Your task to perform on an android device: Search for the best rated headphones on Walmart Image 0: 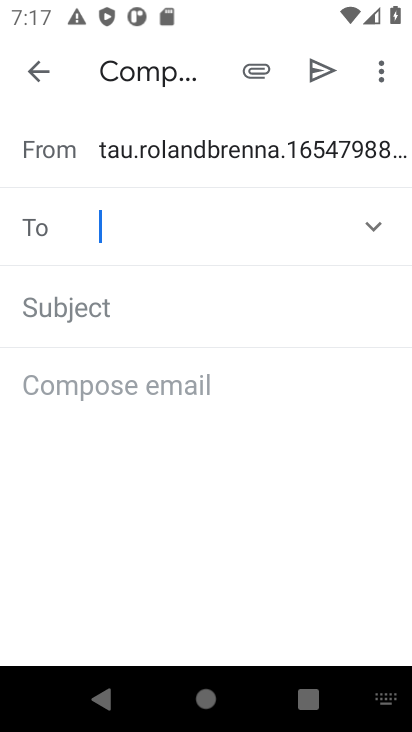
Step 0: press home button
Your task to perform on an android device: Search for the best rated headphones on Walmart Image 1: 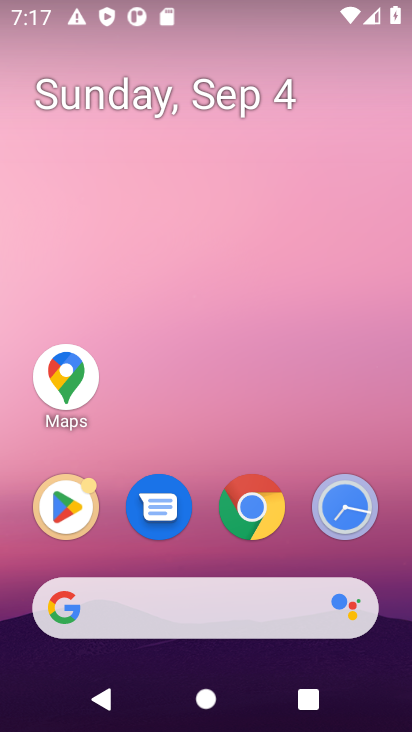
Step 1: click (259, 512)
Your task to perform on an android device: Search for the best rated headphones on Walmart Image 2: 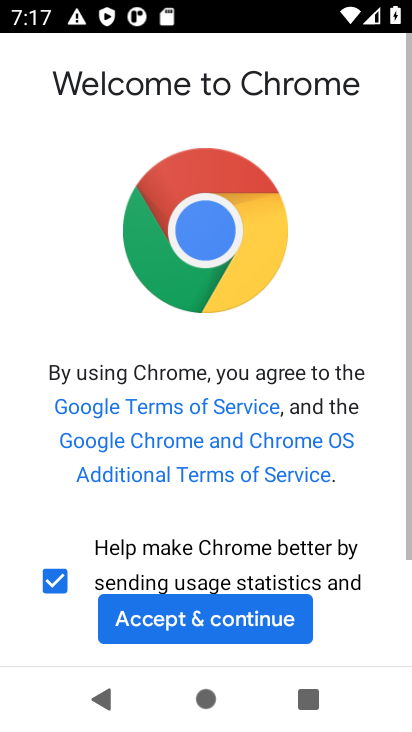
Step 2: click (199, 626)
Your task to perform on an android device: Search for the best rated headphones on Walmart Image 3: 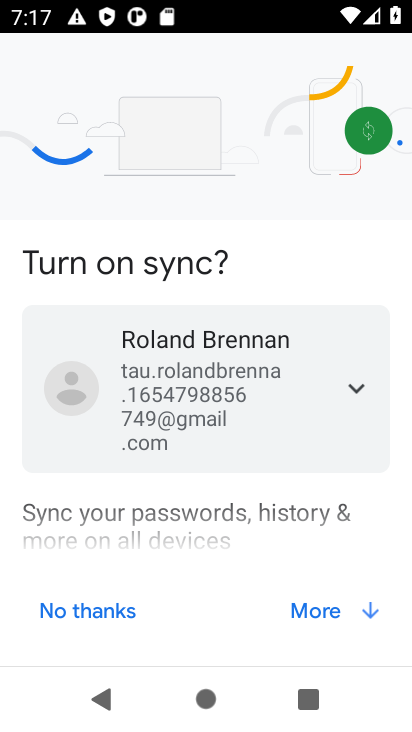
Step 3: click (343, 606)
Your task to perform on an android device: Search for the best rated headphones on Walmart Image 4: 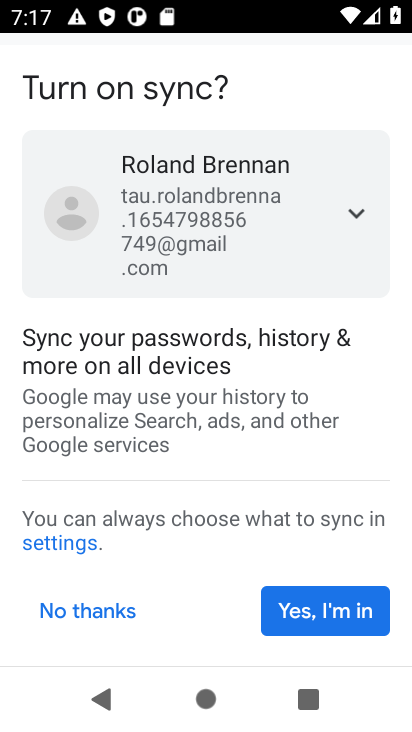
Step 4: click (343, 606)
Your task to perform on an android device: Search for the best rated headphones on Walmart Image 5: 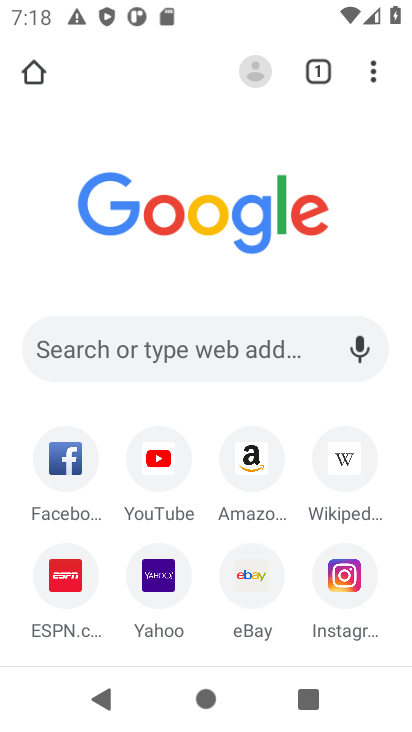
Step 5: click (224, 332)
Your task to perform on an android device: Search for the best rated headphones on Walmart Image 6: 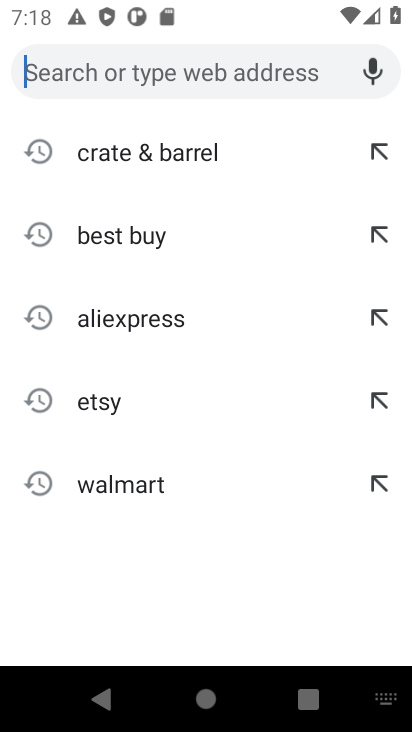
Step 6: type "walmart"
Your task to perform on an android device: Search for the best rated headphones on Walmart Image 7: 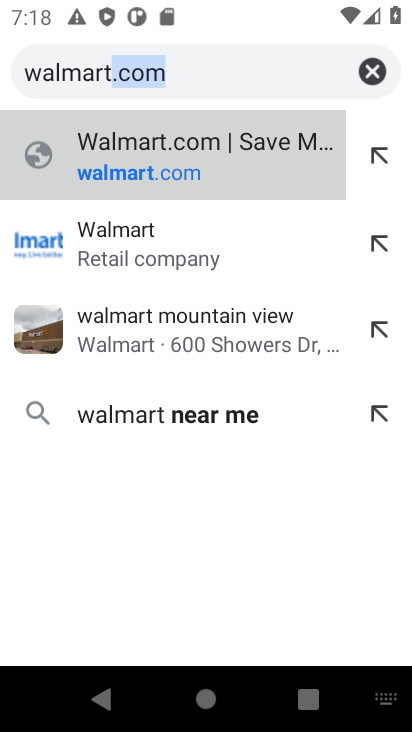
Step 7: click (200, 184)
Your task to perform on an android device: Search for the best rated headphones on Walmart Image 8: 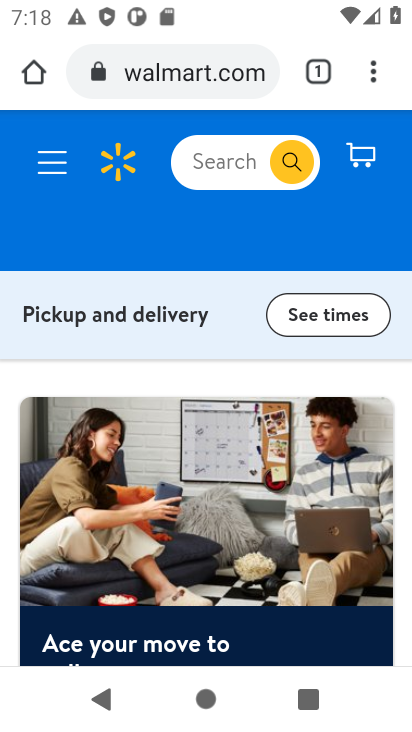
Step 8: click (231, 178)
Your task to perform on an android device: Search for the best rated headphones on Walmart Image 9: 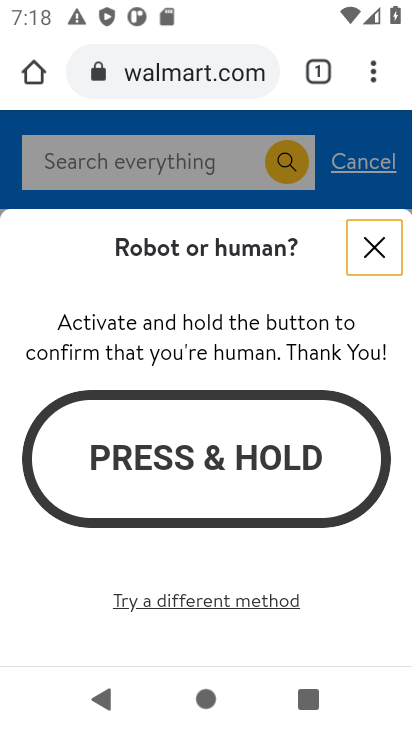
Step 9: click (275, 434)
Your task to perform on an android device: Search for the best rated headphones on Walmart Image 10: 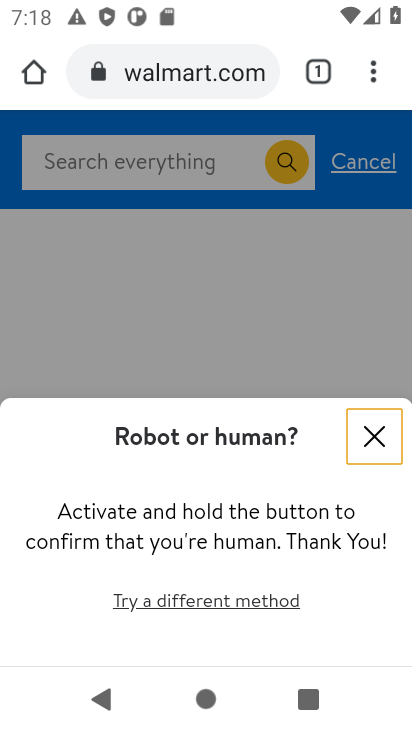
Step 10: click (367, 447)
Your task to perform on an android device: Search for the best rated headphones on Walmart Image 11: 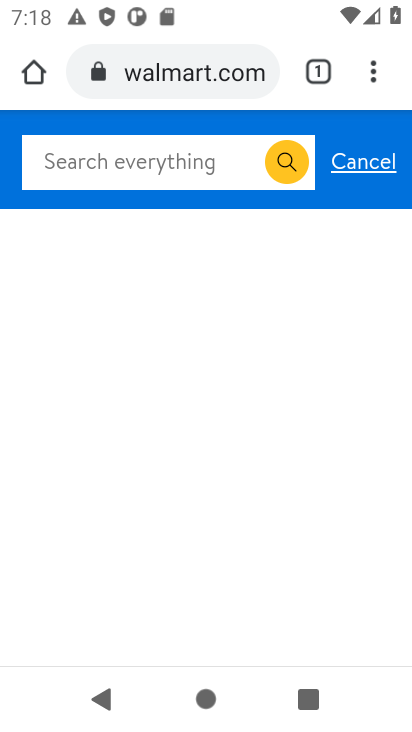
Step 11: click (147, 150)
Your task to perform on an android device: Search for the best rated headphones on Walmart Image 12: 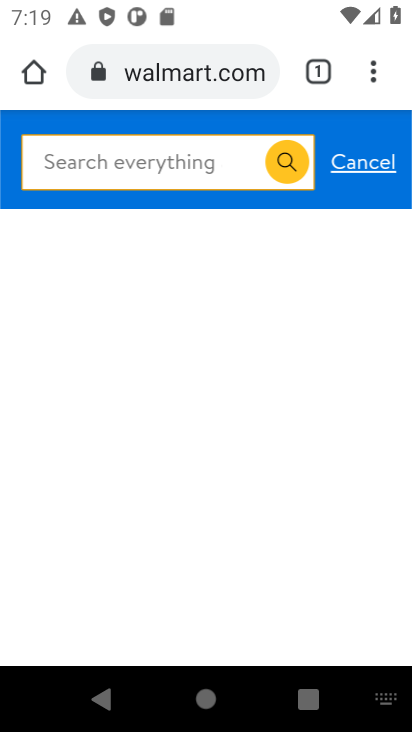
Step 12: type "best rated headphonnes"
Your task to perform on an android device: Search for the best rated headphones on Walmart Image 13: 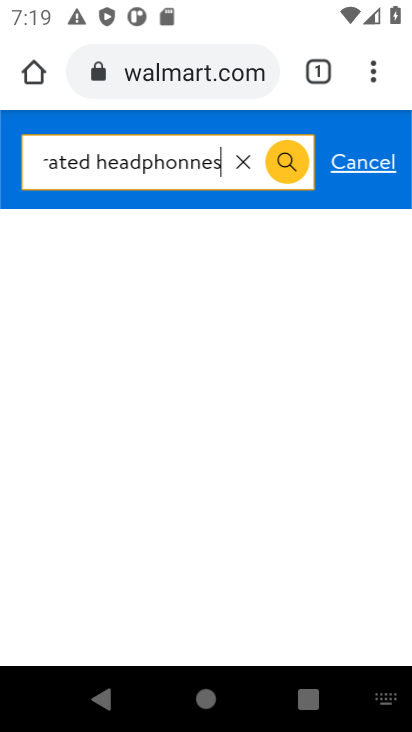
Step 13: press enter
Your task to perform on an android device: Search for the best rated headphones on Walmart Image 14: 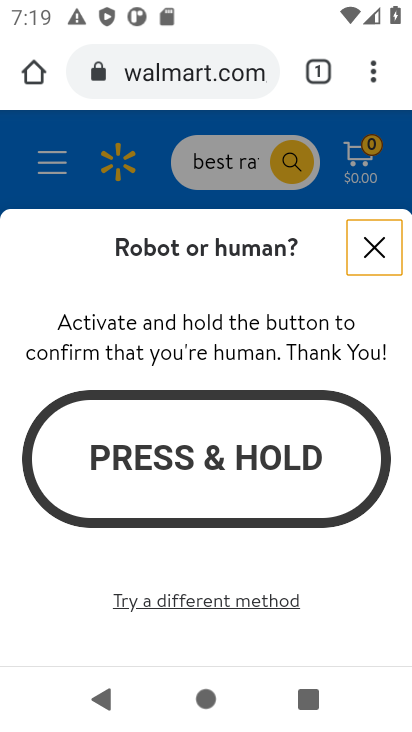
Step 14: click (222, 455)
Your task to perform on an android device: Search for the best rated headphones on Walmart Image 15: 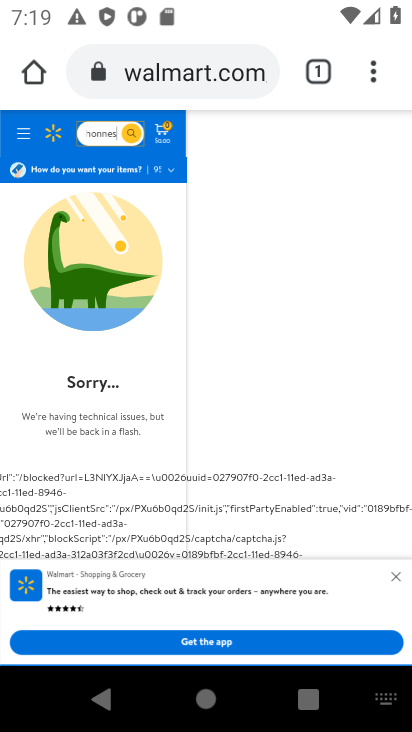
Step 15: task complete